Your task to perform on an android device: see creations saved in the google photos Image 0: 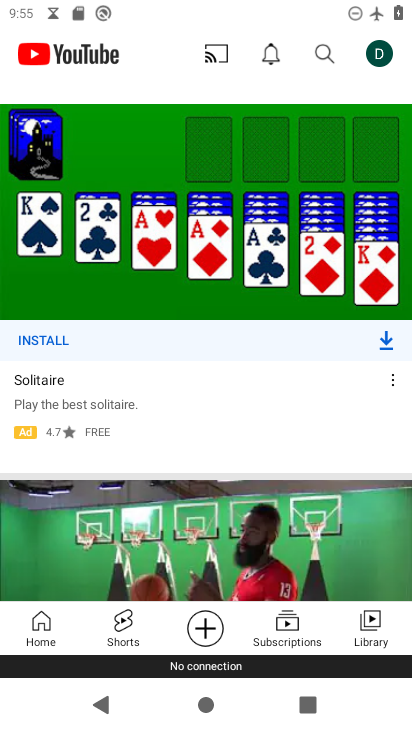
Step 0: press home button
Your task to perform on an android device: see creations saved in the google photos Image 1: 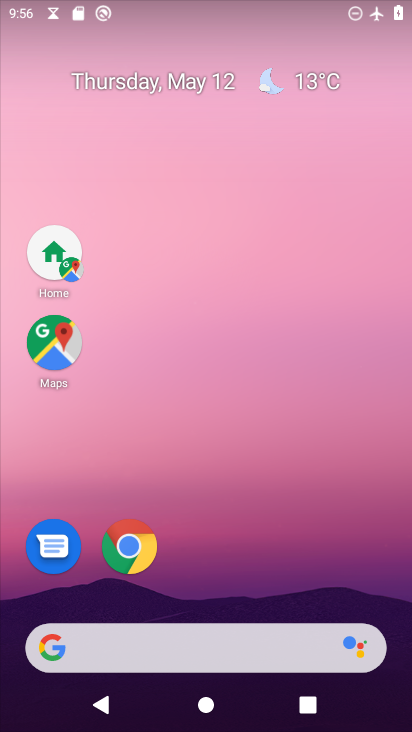
Step 1: drag from (212, 652) to (299, 279)
Your task to perform on an android device: see creations saved in the google photos Image 2: 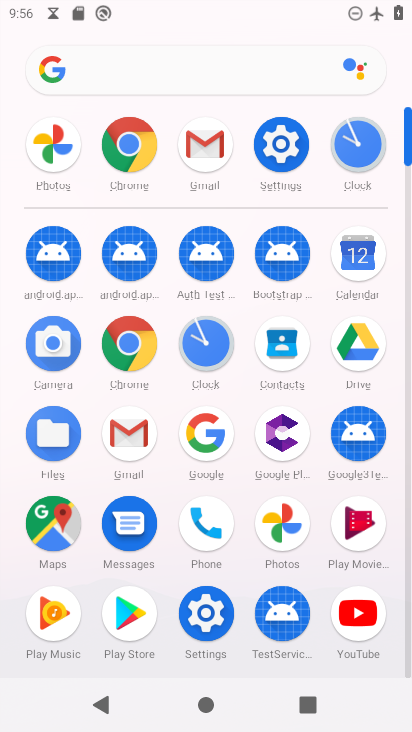
Step 2: click (284, 538)
Your task to perform on an android device: see creations saved in the google photos Image 3: 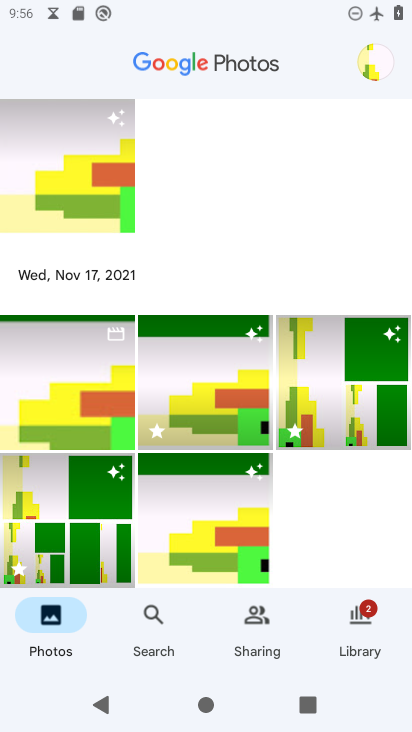
Step 3: click (146, 656)
Your task to perform on an android device: see creations saved in the google photos Image 4: 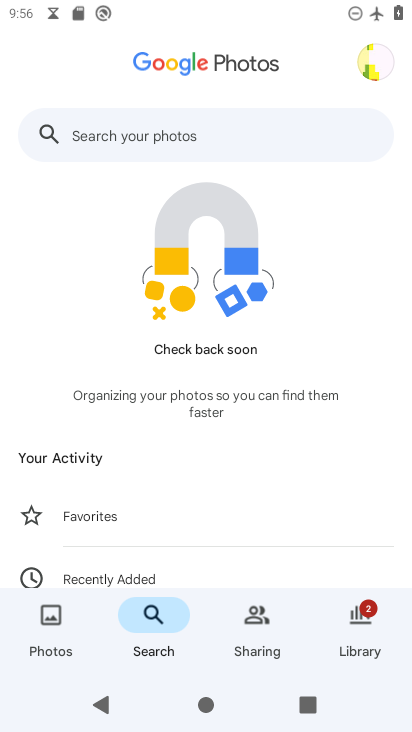
Step 4: drag from (199, 538) to (395, 166)
Your task to perform on an android device: see creations saved in the google photos Image 5: 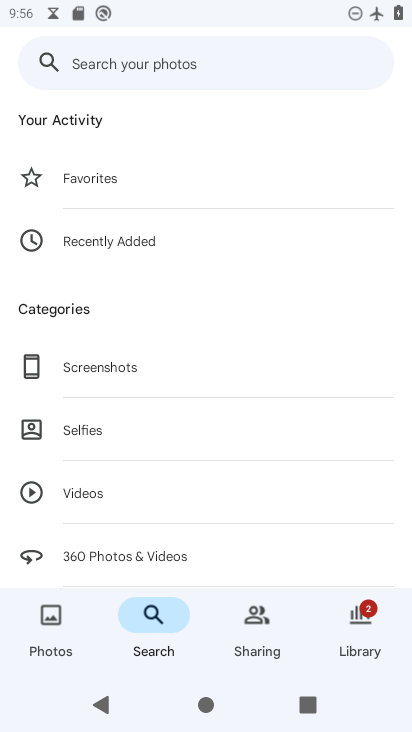
Step 5: drag from (201, 518) to (332, 159)
Your task to perform on an android device: see creations saved in the google photos Image 6: 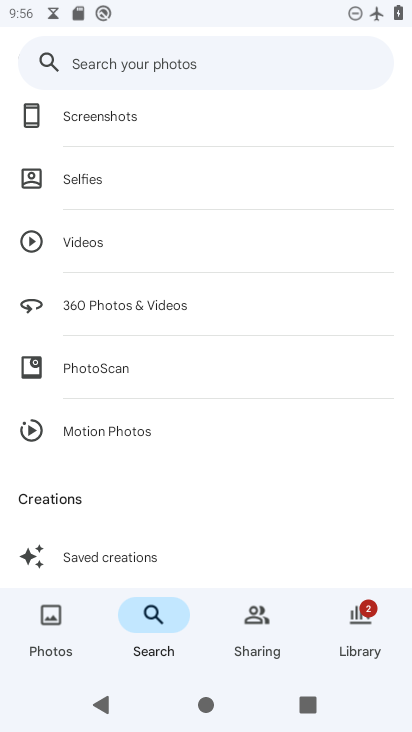
Step 6: click (121, 555)
Your task to perform on an android device: see creations saved in the google photos Image 7: 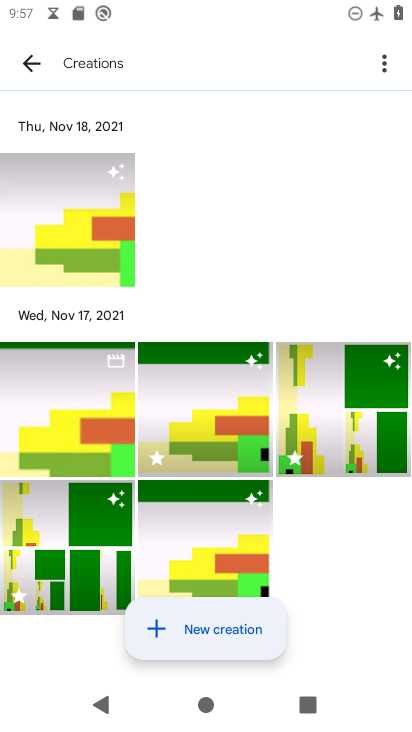
Step 7: task complete